Your task to perform on an android device: add a label to a message in the gmail app Image 0: 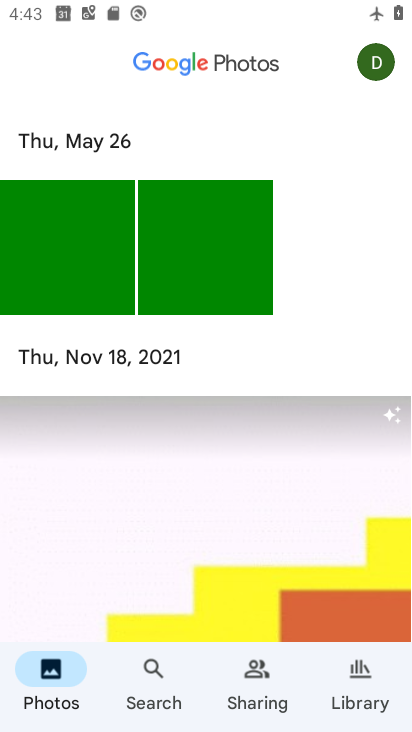
Step 0: press home button
Your task to perform on an android device: add a label to a message in the gmail app Image 1: 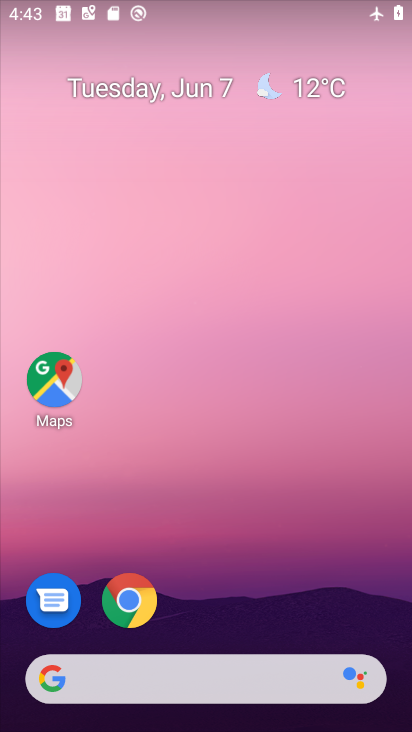
Step 1: drag from (302, 613) to (267, 157)
Your task to perform on an android device: add a label to a message in the gmail app Image 2: 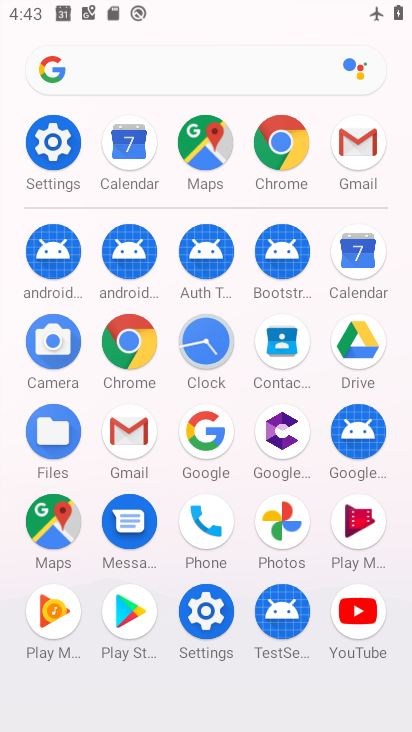
Step 2: click (352, 145)
Your task to perform on an android device: add a label to a message in the gmail app Image 3: 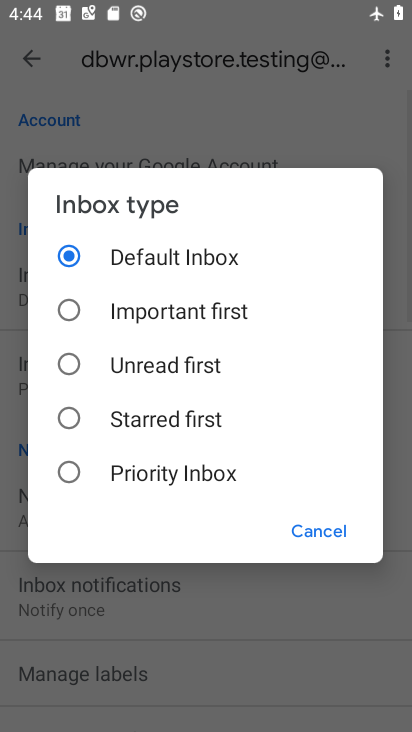
Step 3: click (296, 537)
Your task to perform on an android device: add a label to a message in the gmail app Image 4: 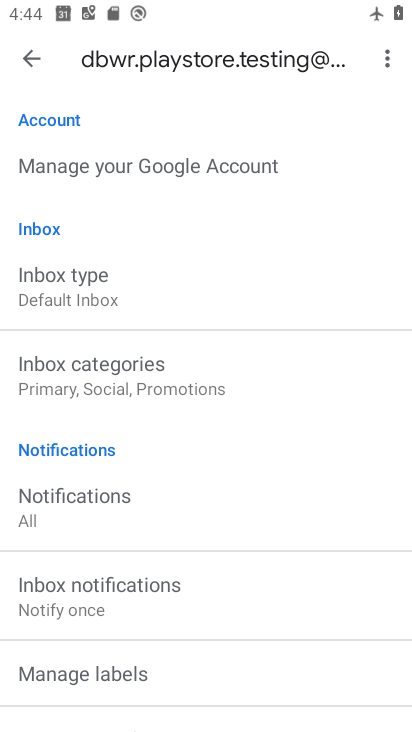
Step 4: click (22, 48)
Your task to perform on an android device: add a label to a message in the gmail app Image 5: 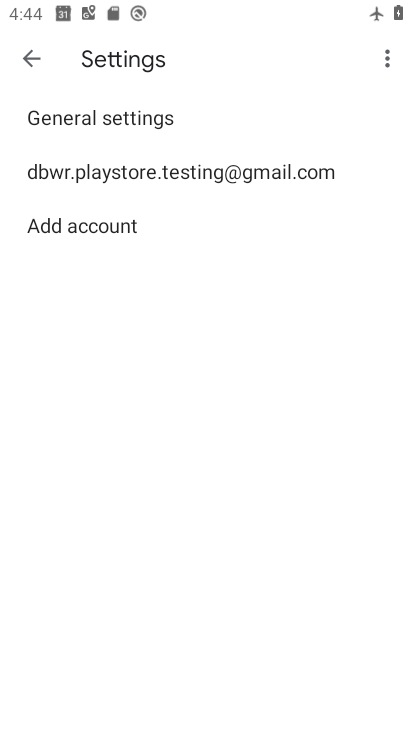
Step 5: click (34, 59)
Your task to perform on an android device: add a label to a message in the gmail app Image 6: 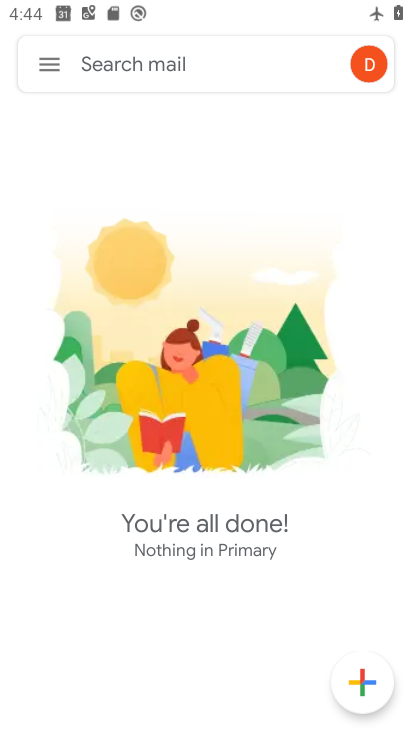
Step 6: click (57, 62)
Your task to perform on an android device: add a label to a message in the gmail app Image 7: 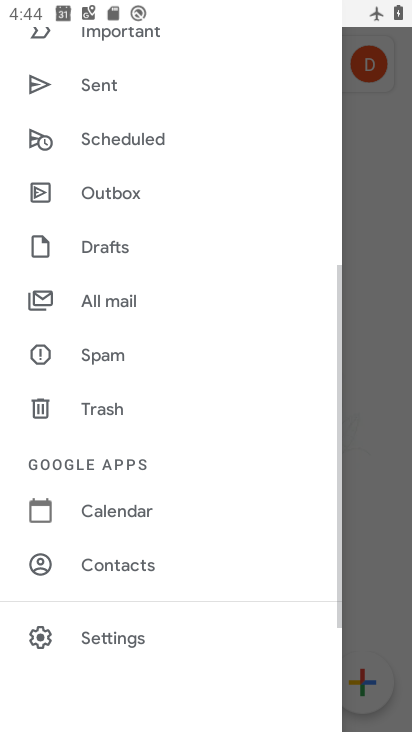
Step 7: click (112, 297)
Your task to perform on an android device: add a label to a message in the gmail app Image 8: 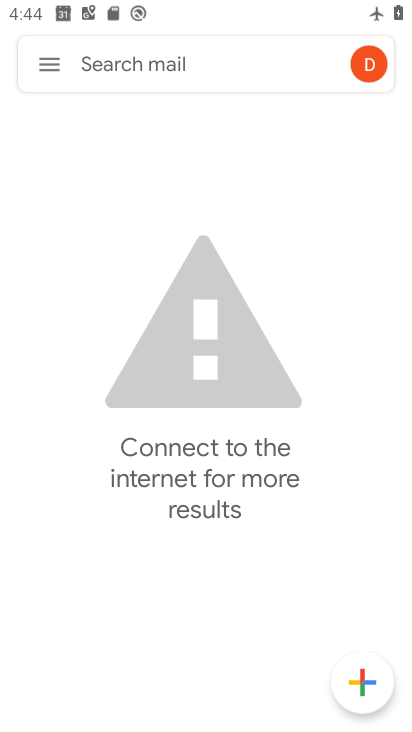
Step 8: task complete